Your task to perform on an android device: Go to location settings Image 0: 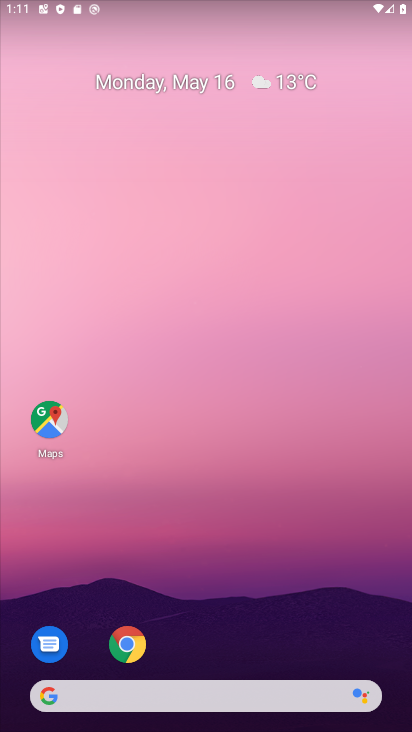
Step 0: drag from (224, 704) to (229, 141)
Your task to perform on an android device: Go to location settings Image 1: 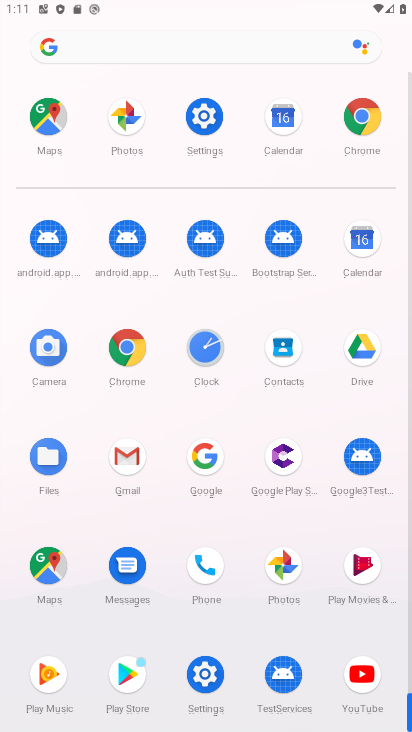
Step 1: click (211, 137)
Your task to perform on an android device: Go to location settings Image 2: 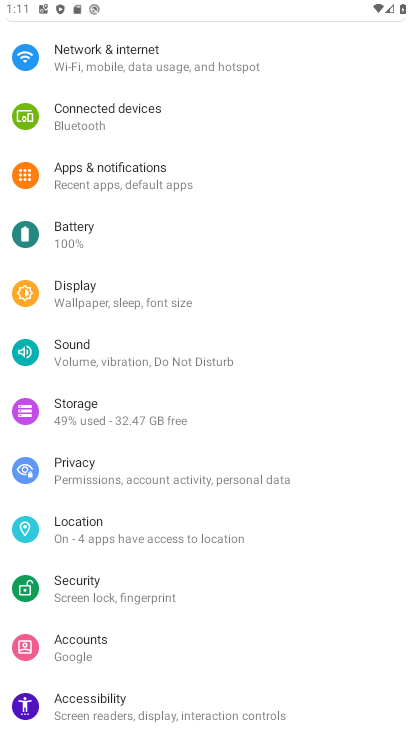
Step 2: drag from (203, 218) to (200, 610)
Your task to perform on an android device: Go to location settings Image 3: 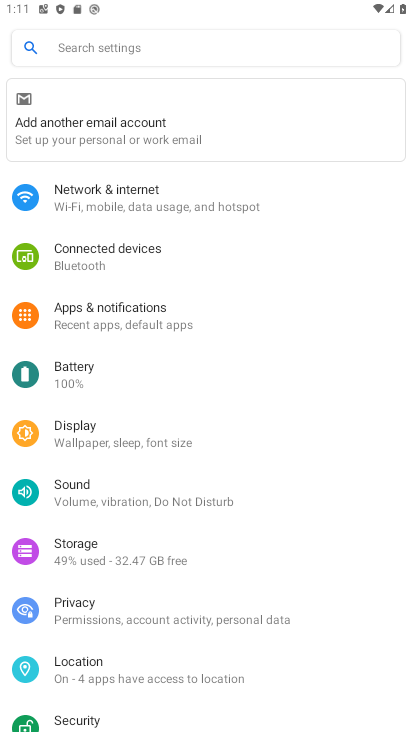
Step 3: drag from (164, 598) to (194, 323)
Your task to perform on an android device: Go to location settings Image 4: 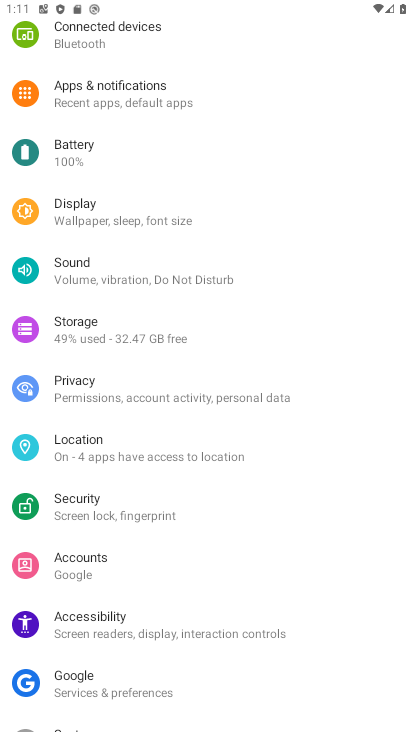
Step 4: click (190, 443)
Your task to perform on an android device: Go to location settings Image 5: 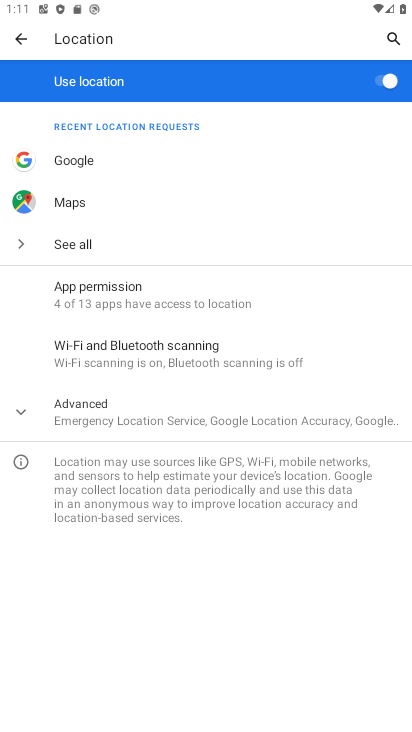
Step 5: task complete